Your task to perform on an android device: Open notification settings Image 0: 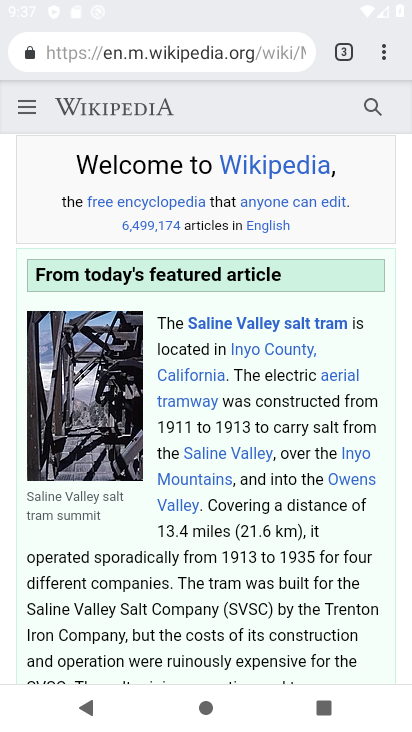
Step 0: press home button
Your task to perform on an android device: Open notification settings Image 1: 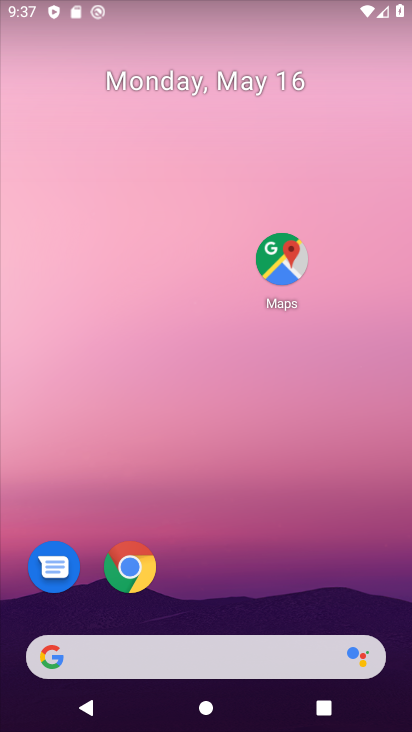
Step 1: drag from (247, 555) to (222, 83)
Your task to perform on an android device: Open notification settings Image 2: 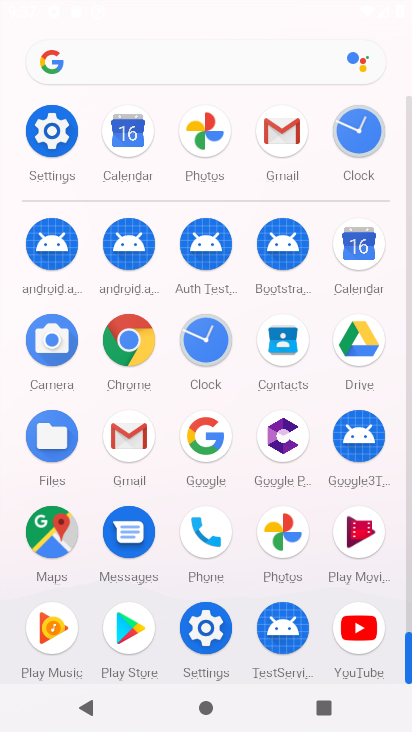
Step 2: click (209, 626)
Your task to perform on an android device: Open notification settings Image 3: 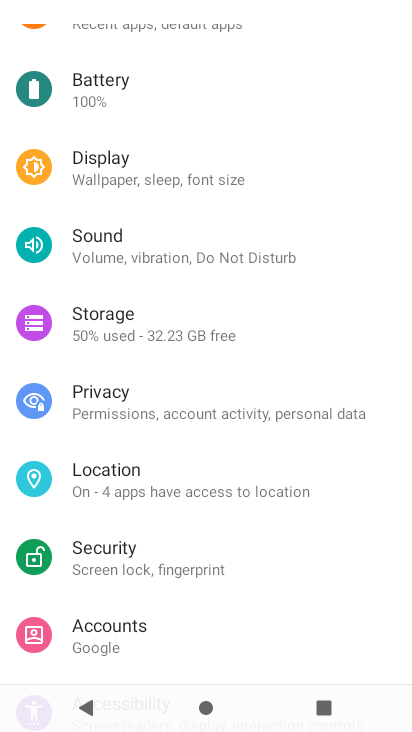
Step 3: drag from (181, 230) to (175, 611)
Your task to perform on an android device: Open notification settings Image 4: 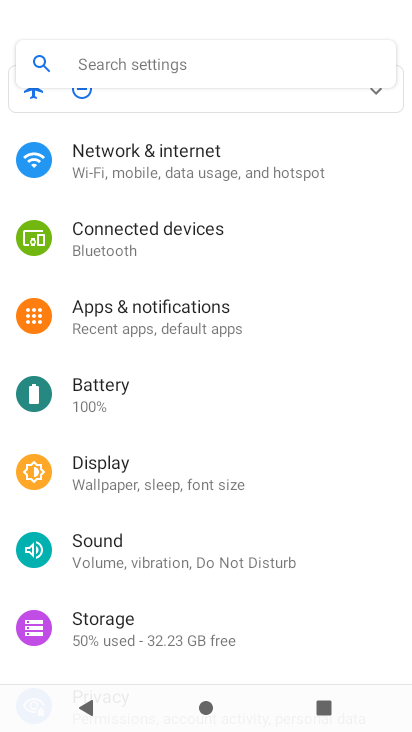
Step 4: click (154, 320)
Your task to perform on an android device: Open notification settings Image 5: 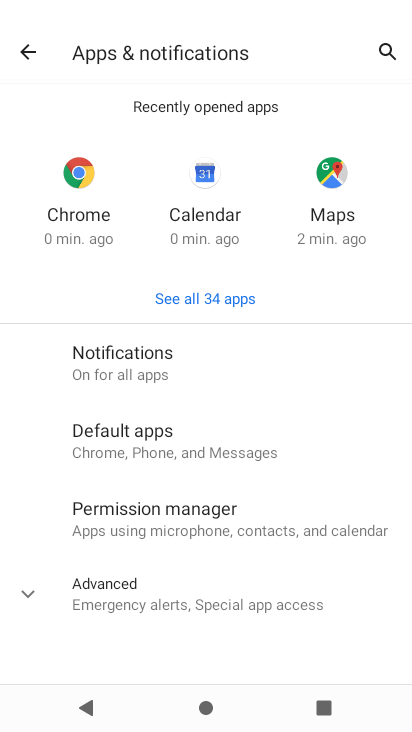
Step 5: click (159, 359)
Your task to perform on an android device: Open notification settings Image 6: 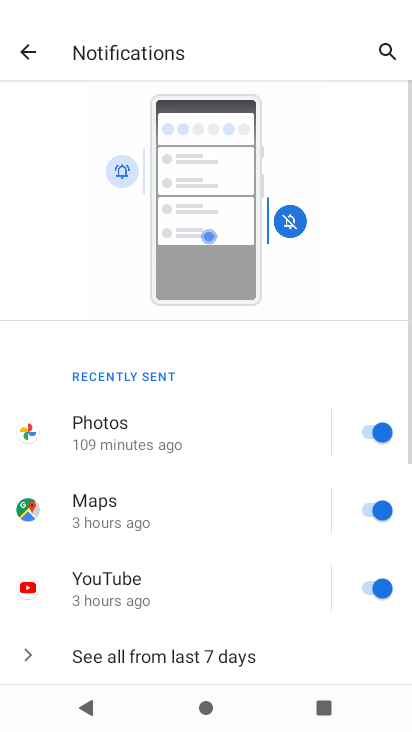
Step 6: drag from (220, 460) to (244, 226)
Your task to perform on an android device: Open notification settings Image 7: 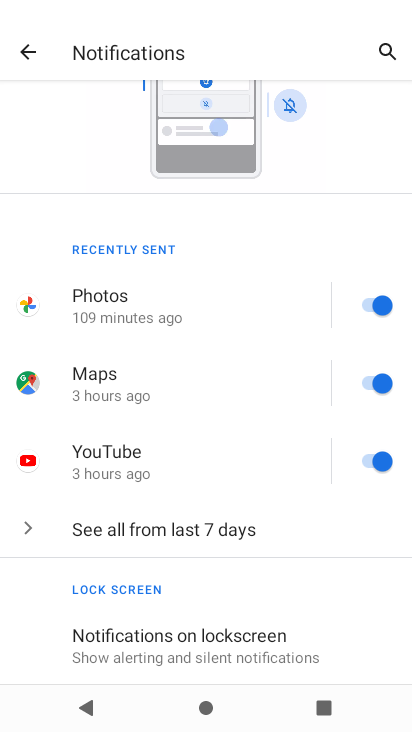
Step 7: drag from (196, 601) to (202, 327)
Your task to perform on an android device: Open notification settings Image 8: 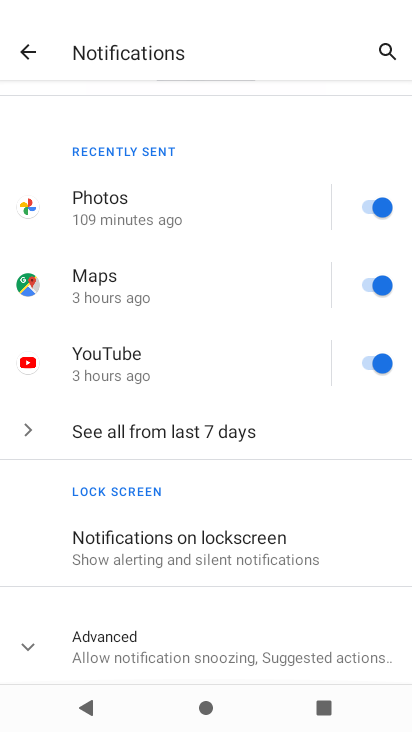
Step 8: click (152, 537)
Your task to perform on an android device: Open notification settings Image 9: 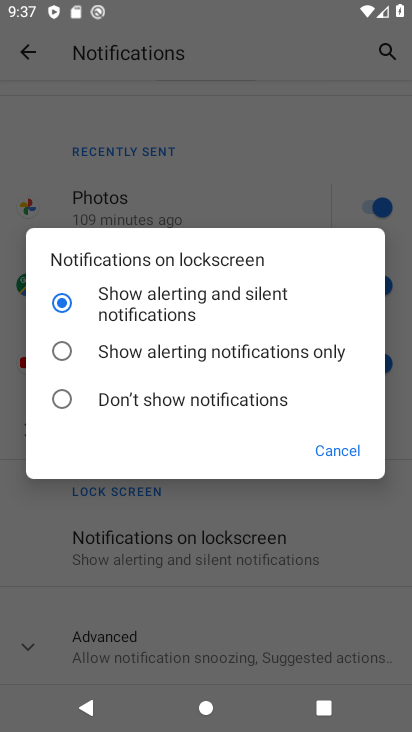
Step 9: task complete